Your task to perform on an android device: Go to wifi settings Image 0: 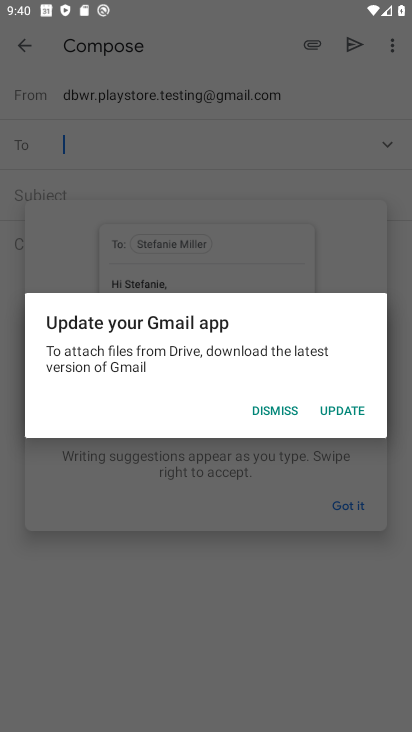
Step 0: press home button
Your task to perform on an android device: Go to wifi settings Image 1: 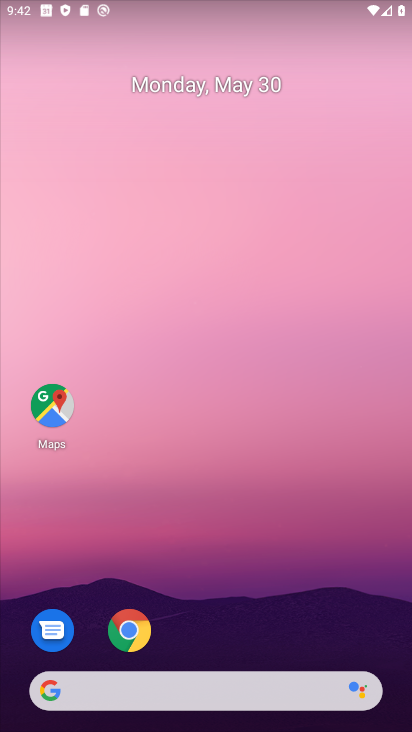
Step 1: drag from (228, 617) to (219, 2)
Your task to perform on an android device: Go to wifi settings Image 2: 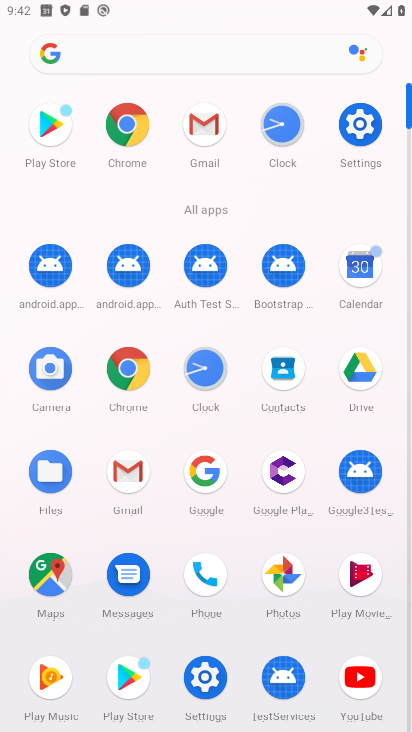
Step 2: click (361, 144)
Your task to perform on an android device: Go to wifi settings Image 3: 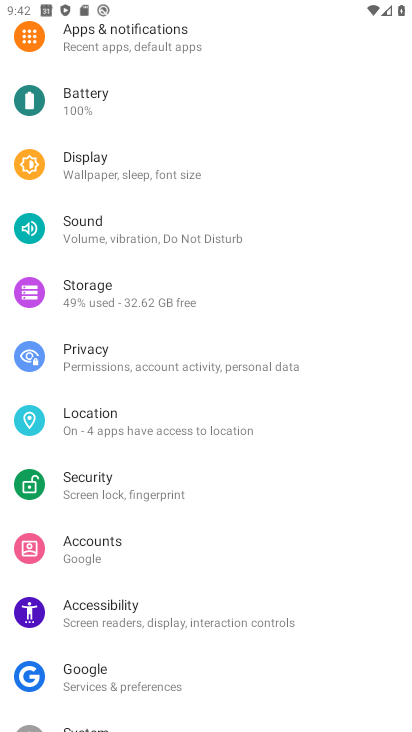
Step 3: task complete